Your task to perform on an android device: turn on bluetooth scan Image 0: 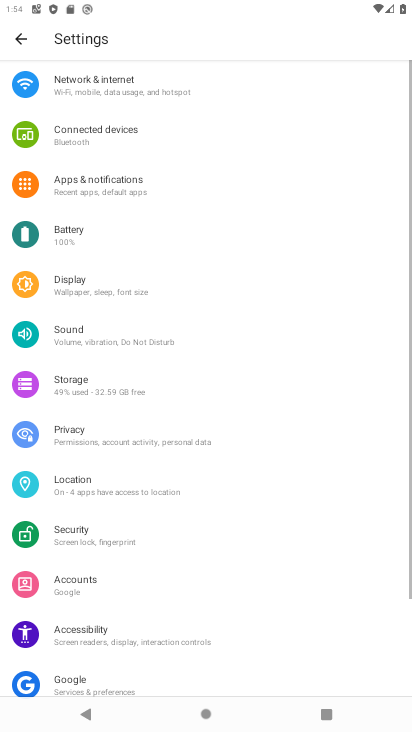
Step 0: press home button
Your task to perform on an android device: turn on bluetooth scan Image 1: 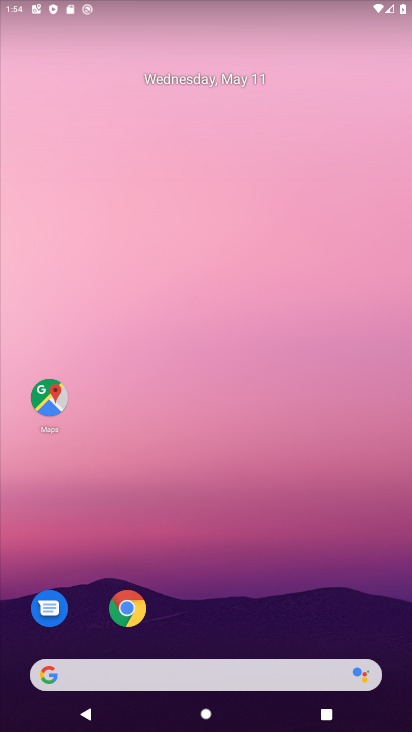
Step 1: drag from (250, 540) to (207, 262)
Your task to perform on an android device: turn on bluetooth scan Image 2: 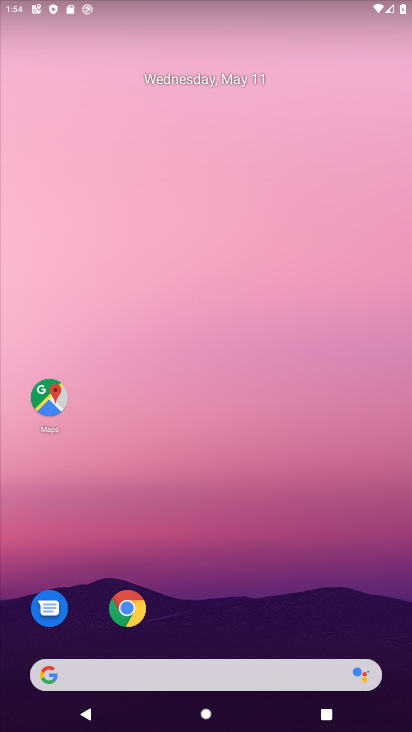
Step 2: drag from (252, 719) to (289, 170)
Your task to perform on an android device: turn on bluetooth scan Image 3: 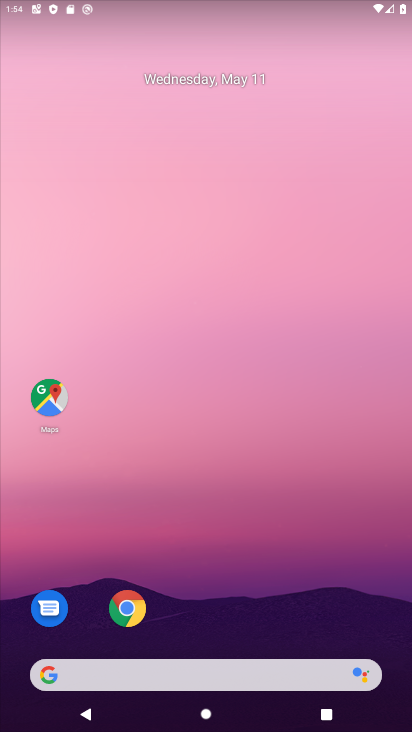
Step 3: drag from (249, 705) to (254, 218)
Your task to perform on an android device: turn on bluetooth scan Image 4: 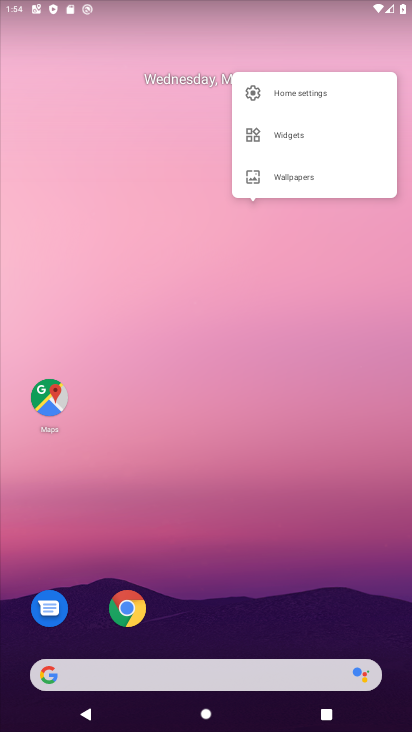
Step 4: click (302, 353)
Your task to perform on an android device: turn on bluetooth scan Image 5: 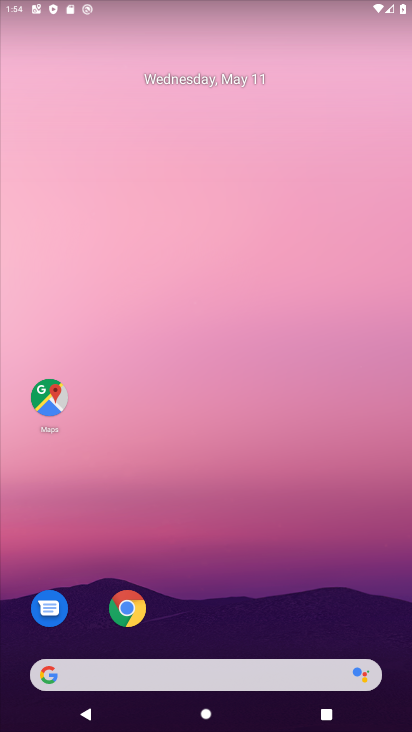
Step 5: drag from (265, 719) to (389, 15)
Your task to perform on an android device: turn on bluetooth scan Image 6: 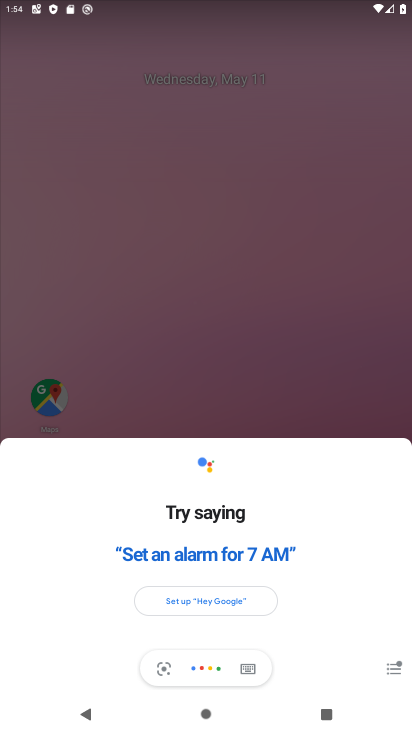
Step 6: click (166, 274)
Your task to perform on an android device: turn on bluetooth scan Image 7: 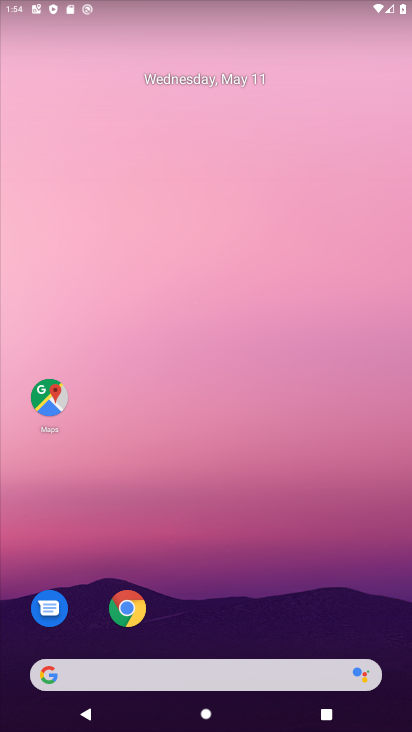
Step 7: drag from (242, 715) to (266, 177)
Your task to perform on an android device: turn on bluetooth scan Image 8: 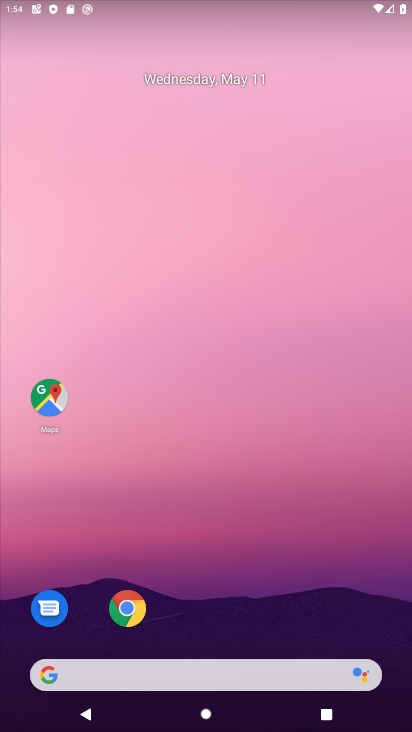
Step 8: drag from (254, 720) to (347, 6)
Your task to perform on an android device: turn on bluetooth scan Image 9: 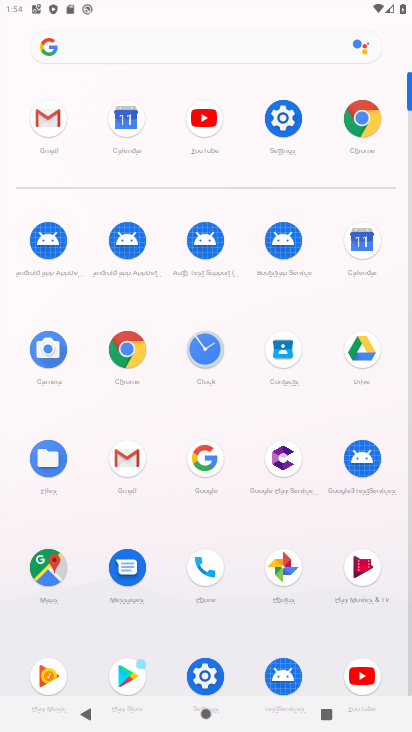
Step 9: click (287, 132)
Your task to perform on an android device: turn on bluetooth scan Image 10: 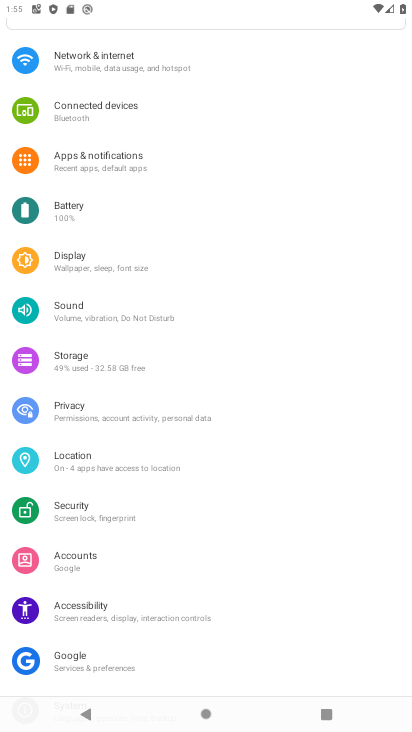
Step 10: task complete